Your task to perform on an android device: see creations saved in the google photos Image 0: 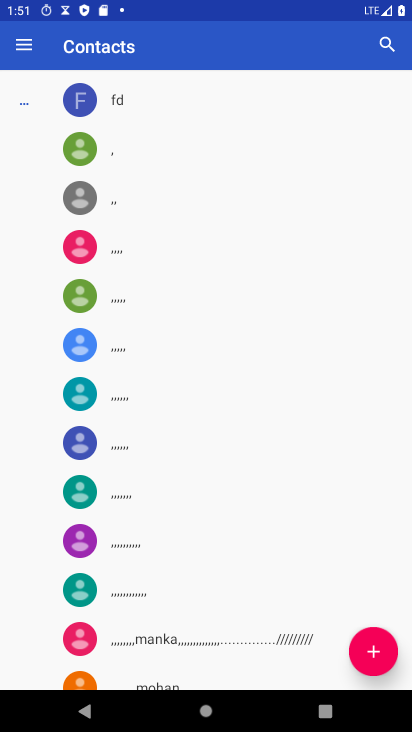
Step 0: press home button
Your task to perform on an android device: see creations saved in the google photos Image 1: 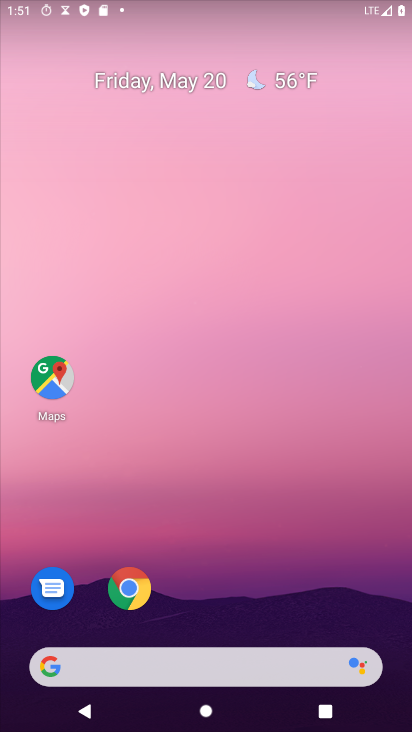
Step 1: drag from (42, 487) to (233, 147)
Your task to perform on an android device: see creations saved in the google photos Image 2: 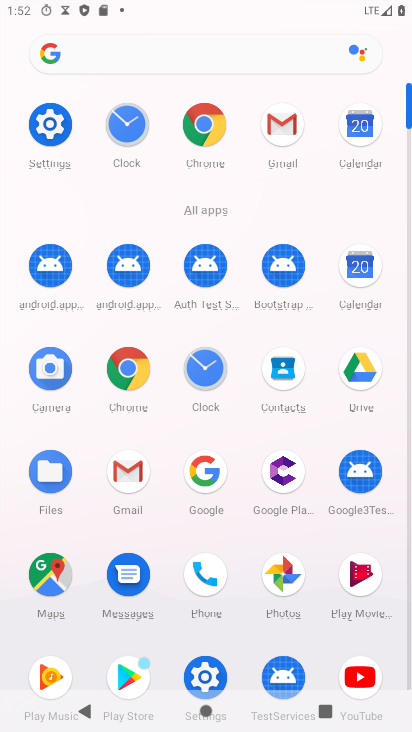
Step 2: click (275, 574)
Your task to perform on an android device: see creations saved in the google photos Image 3: 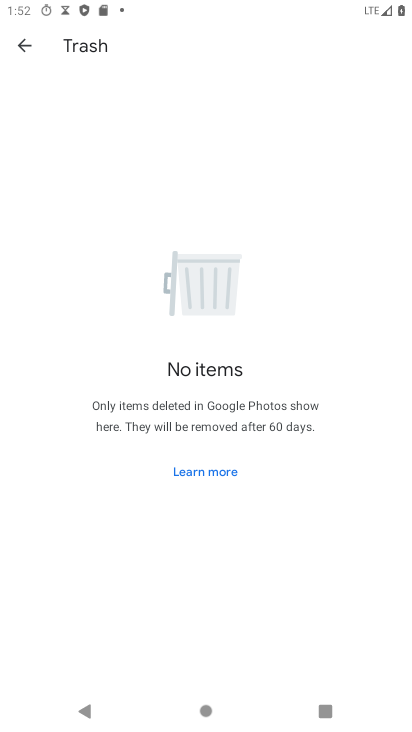
Step 3: press back button
Your task to perform on an android device: see creations saved in the google photos Image 4: 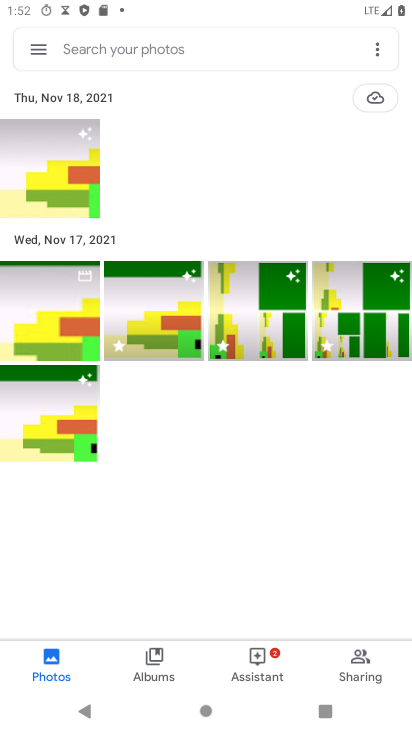
Step 4: click (195, 45)
Your task to perform on an android device: see creations saved in the google photos Image 5: 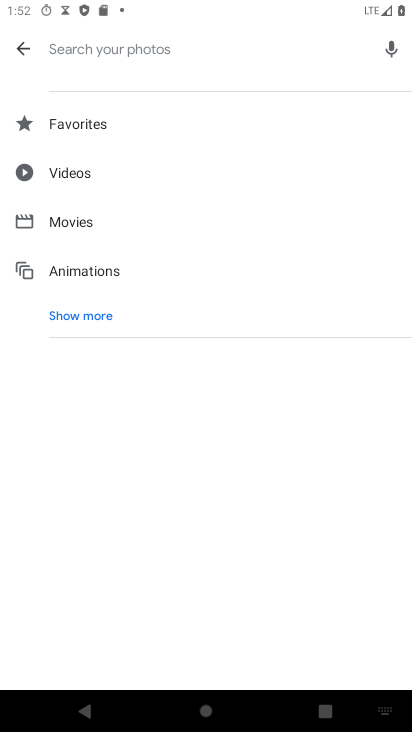
Step 5: click (83, 312)
Your task to perform on an android device: see creations saved in the google photos Image 6: 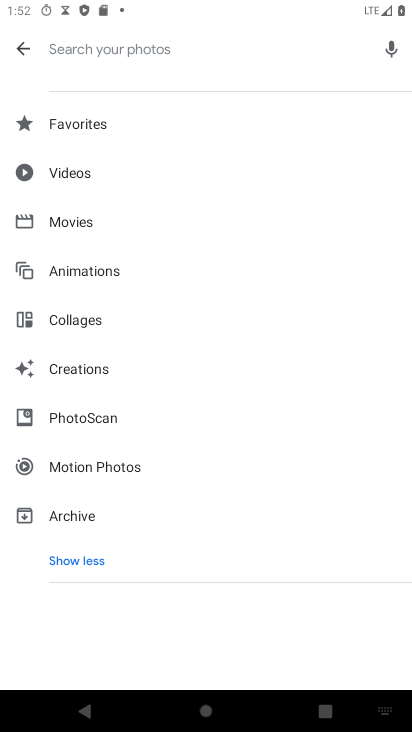
Step 6: click (84, 373)
Your task to perform on an android device: see creations saved in the google photos Image 7: 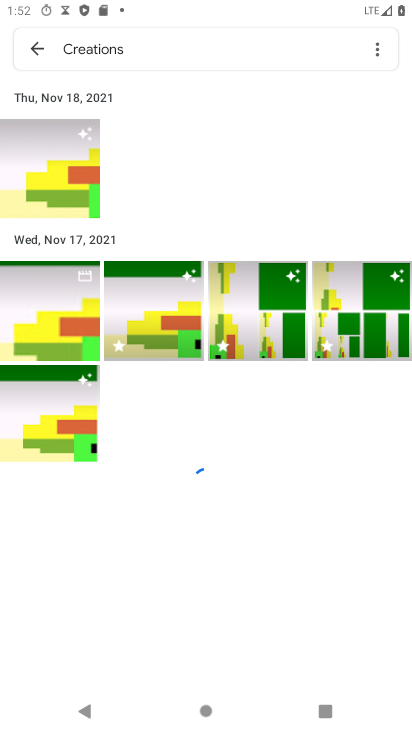
Step 7: task complete